Your task to perform on an android device: change your default location settings in chrome Image 0: 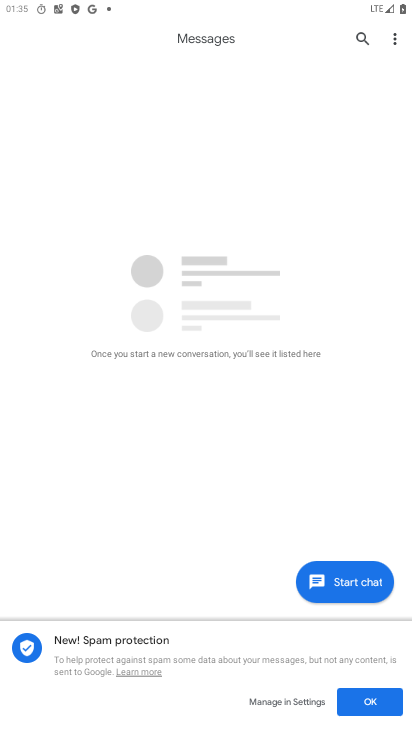
Step 0: press home button
Your task to perform on an android device: change your default location settings in chrome Image 1: 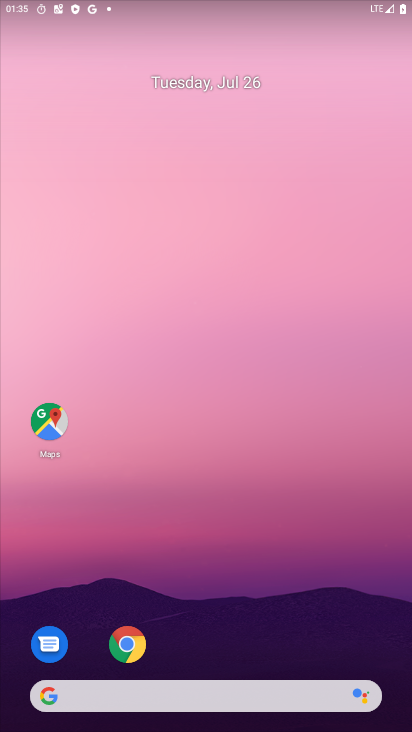
Step 1: click (129, 647)
Your task to perform on an android device: change your default location settings in chrome Image 2: 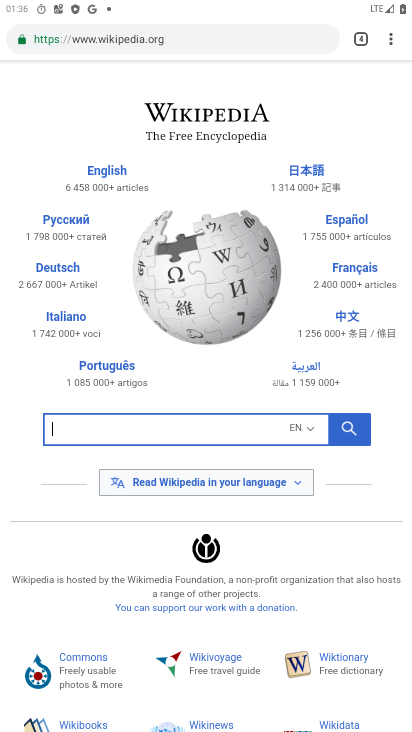
Step 2: drag from (395, 37) to (269, 473)
Your task to perform on an android device: change your default location settings in chrome Image 3: 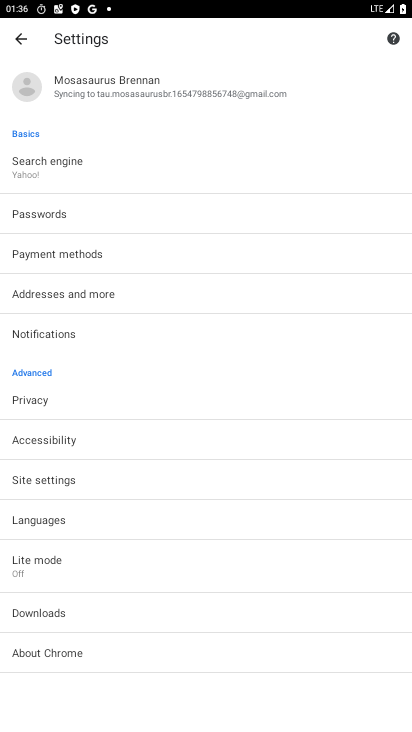
Step 3: click (42, 480)
Your task to perform on an android device: change your default location settings in chrome Image 4: 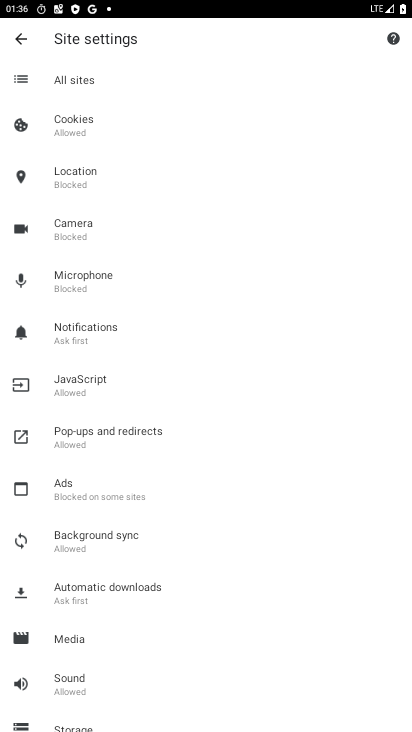
Step 4: click (84, 179)
Your task to perform on an android device: change your default location settings in chrome Image 5: 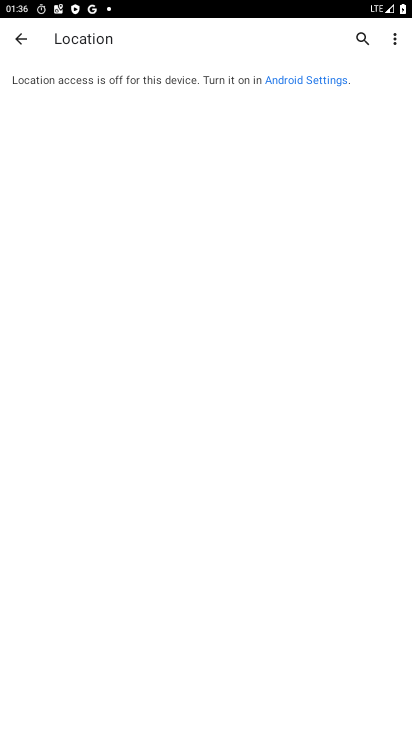
Step 5: click (303, 84)
Your task to perform on an android device: change your default location settings in chrome Image 6: 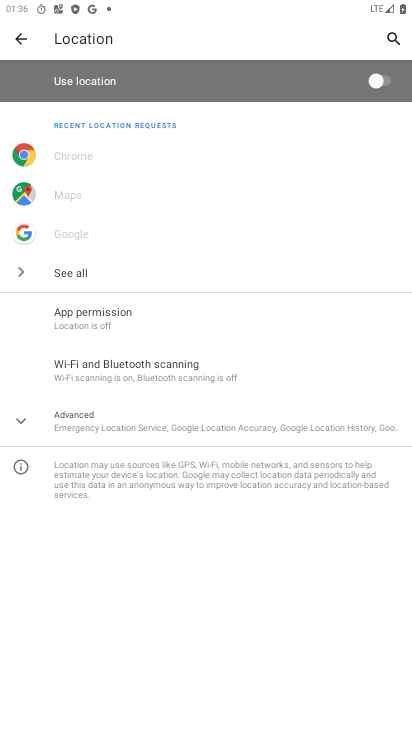
Step 6: click (375, 83)
Your task to perform on an android device: change your default location settings in chrome Image 7: 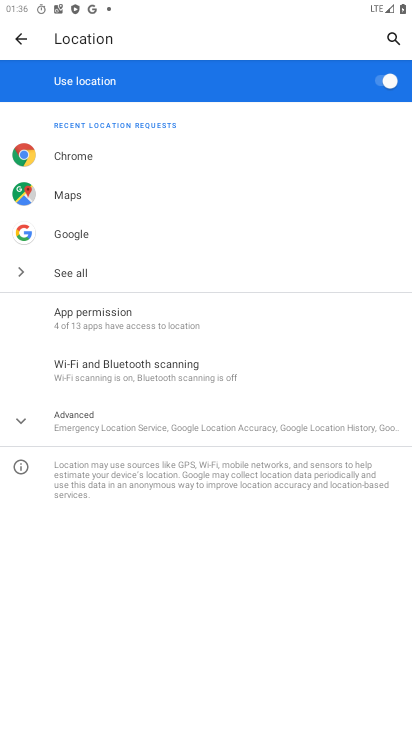
Step 7: task complete